Your task to perform on an android device: Turn off the flashlight Image 0: 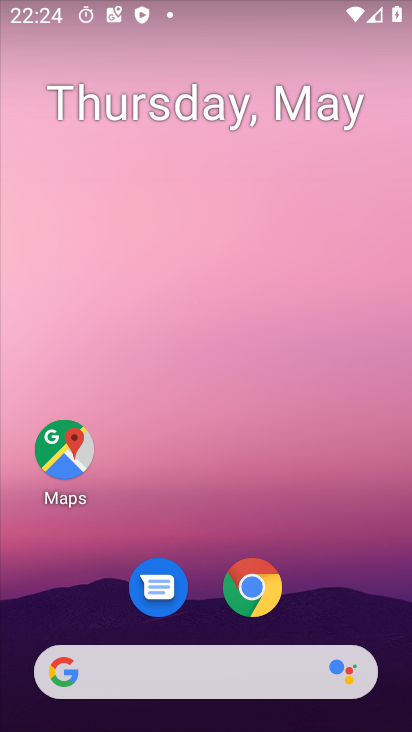
Step 0: drag from (194, 0) to (306, 719)
Your task to perform on an android device: Turn off the flashlight Image 1: 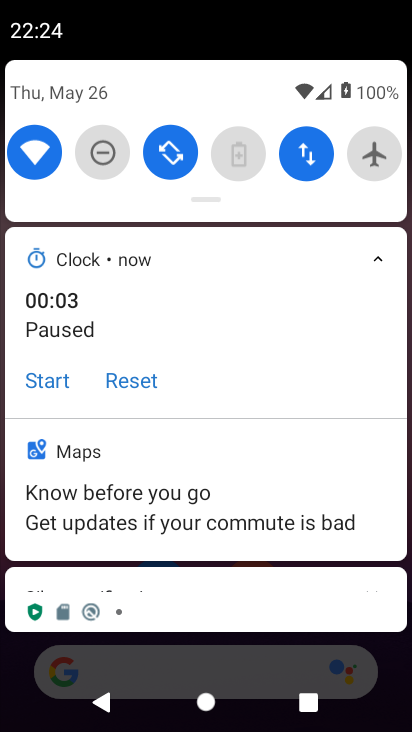
Step 1: task complete